Your task to perform on an android device: What's the weather going to be tomorrow? Image 0: 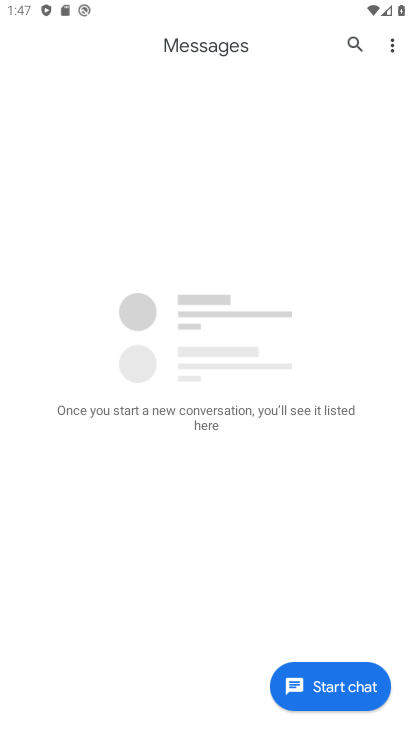
Step 0: press back button
Your task to perform on an android device: What's the weather going to be tomorrow? Image 1: 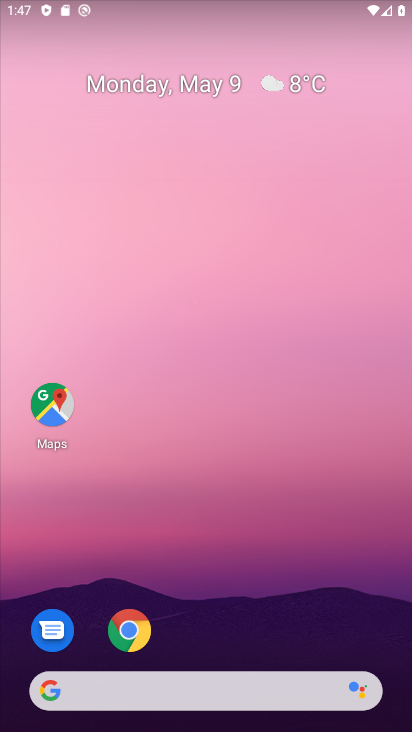
Step 1: drag from (223, 596) to (315, 85)
Your task to perform on an android device: What's the weather going to be tomorrow? Image 2: 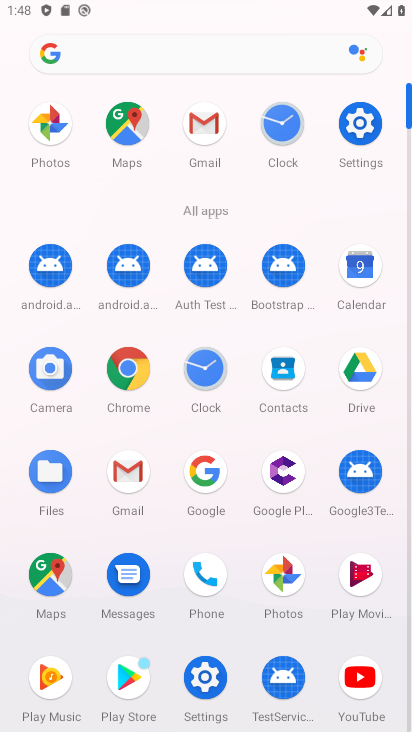
Step 2: press back button
Your task to perform on an android device: What's the weather going to be tomorrow? Image 3: 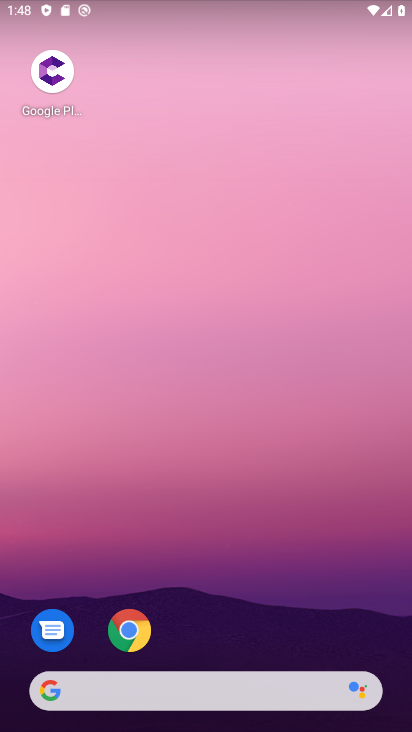
Step 3: click (158, 691)
Your task to perform on an android device: What's the weather going to be tomorrow? Image 4: 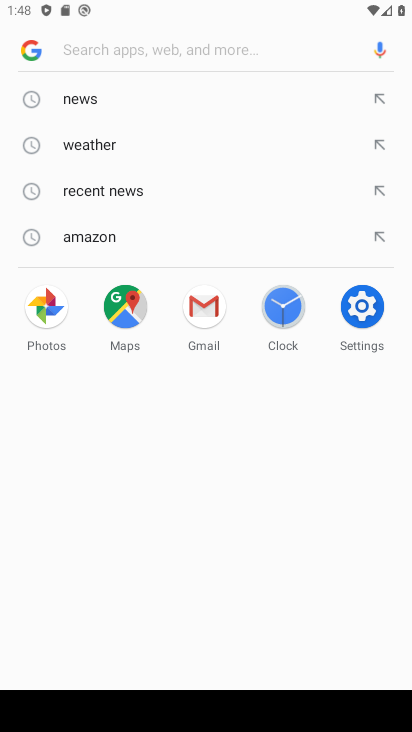
Step 4: click (93, 140)
Your task to perform on an android device: What's the weather going to be tomorrow? Image 5: 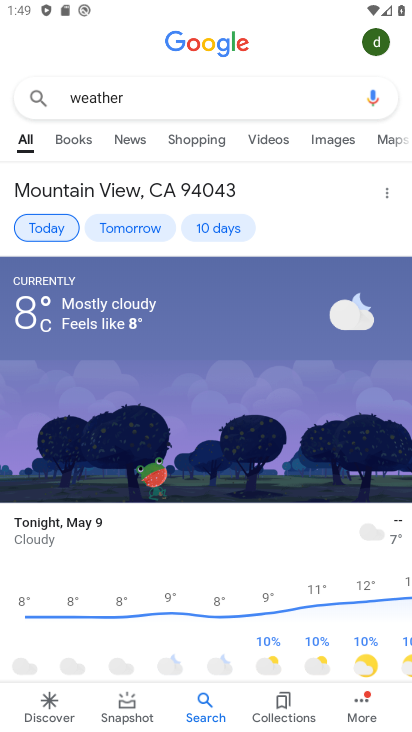
Step 5: click (117, 227)
Your task to perform on an android device: What's the weather going to be tomorrow? Image 6: 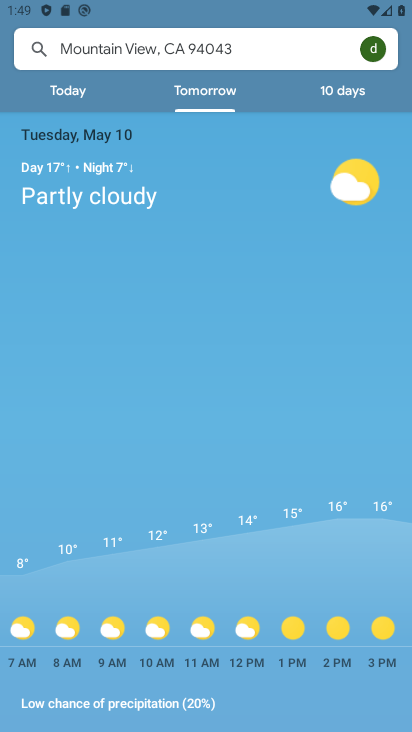
Step 6: task complete